Your task to perform on an android device: Is it going to rain today? Image 0: 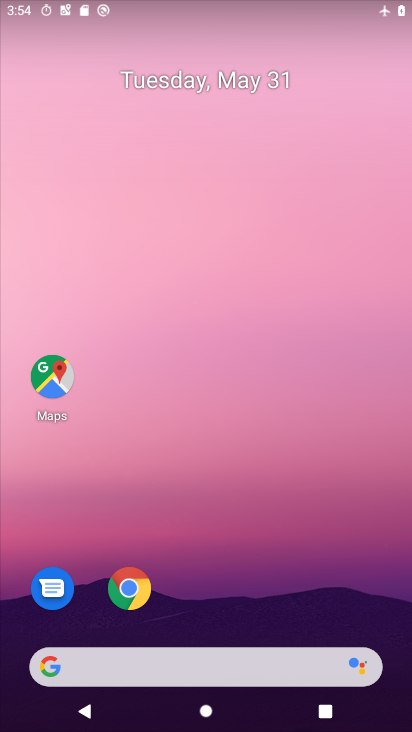
Step 0: drag from (253, 705) to (297, 389)
Your task to perform on an android device: Is it going to rain today? Image 1: 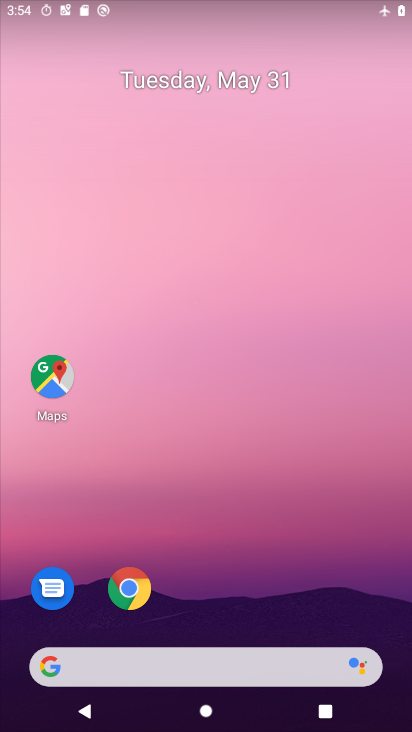
Step 1: drag from (236, 628) to (197, 224)
Your task to perform on an android device: Is it going to rain today? Image 2: 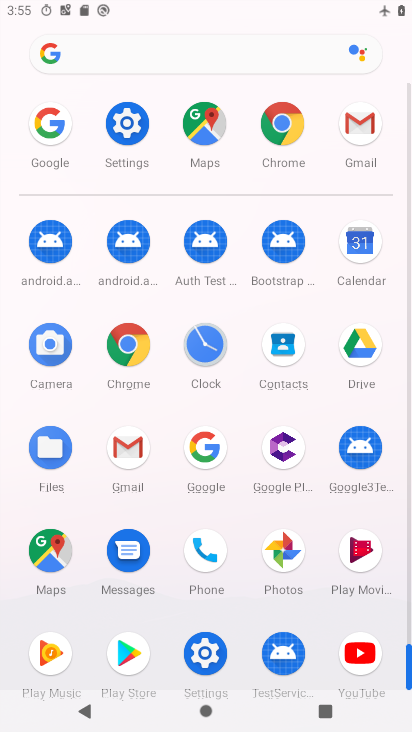
Step 2: click (210, 468)
Your task to perform on an android device: Is it going to rain today? Image 3: 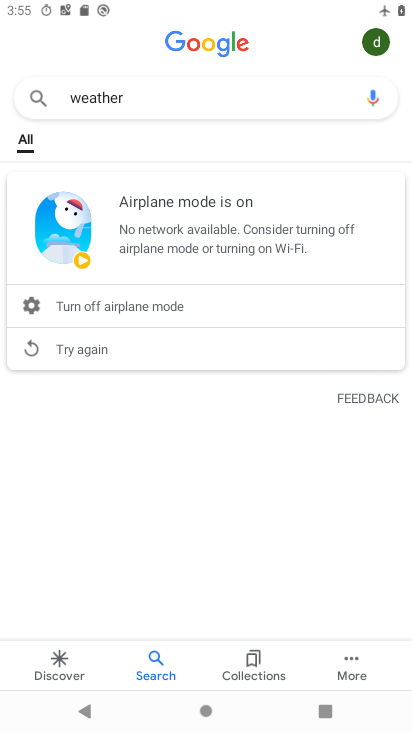
Step 3: task complete